Your task to perform on an android device: turn on javascript in the chrome app Image 0: 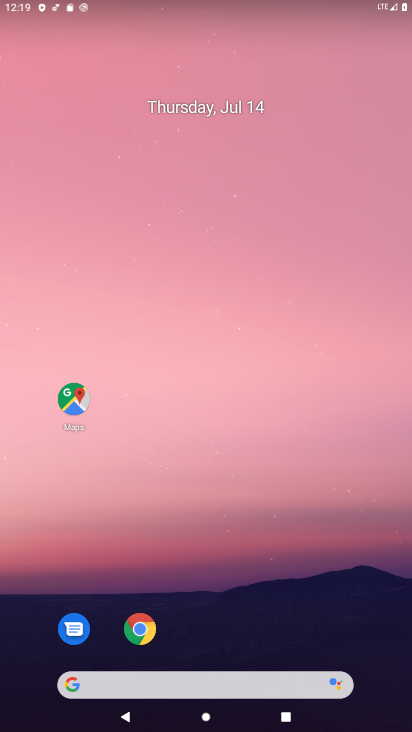
Step 0: drag from (269, 510) to (251, 0)
Your task to perform on an android device: turn on javascript in the chrome app Image 1: 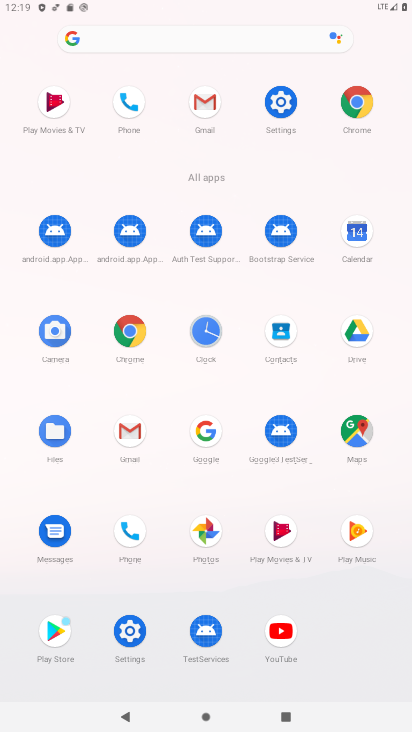
Step 1: click (131, 336)
Your task to perform on an android device: turn on javascript in the chrome app Image 2: 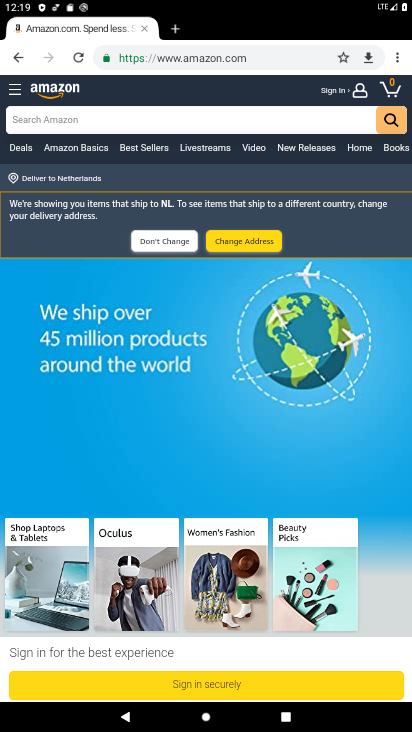
Step 2: drag from (397, 65) to (292, 377)
Your task to perform on an android device: turn on javascript in the chrome app Image 3: 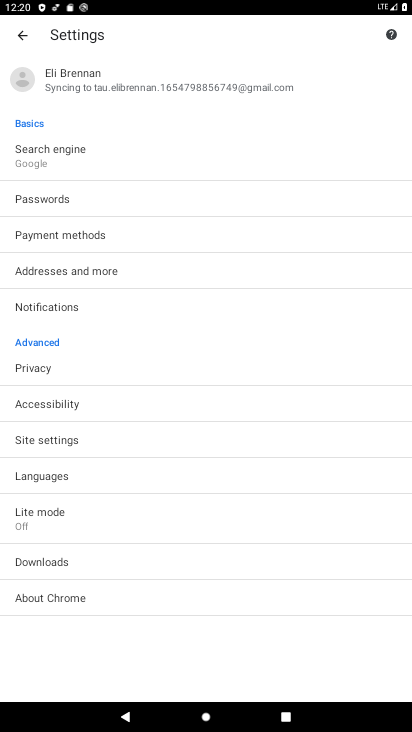
Step 3: click (63, 431)
Your task to perform on an android device: turn on javascript in the chrome app Image 4: 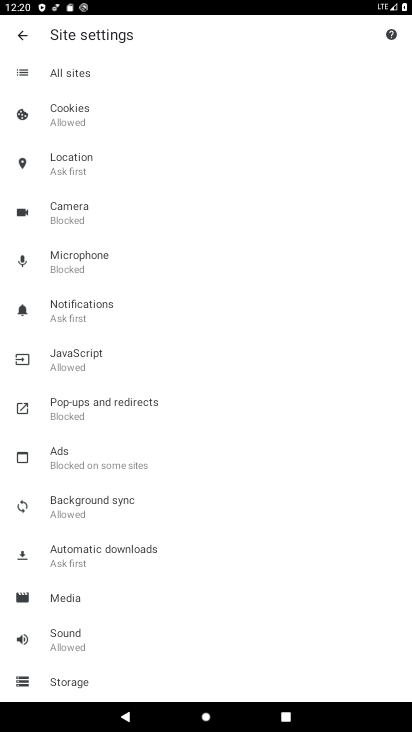
Step 4: click (88, 359)
Your task to perform on an android device: turn on javascript in the chrome app Image 5: 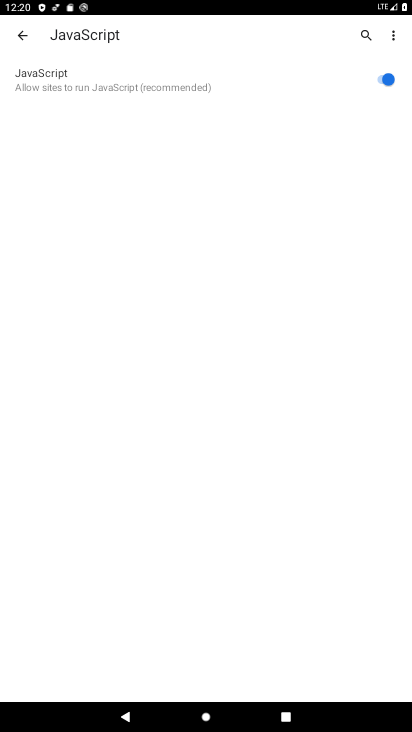
Step 5: task complete